Your task to perform on an android device: turn off notifications in google photos Image 0: 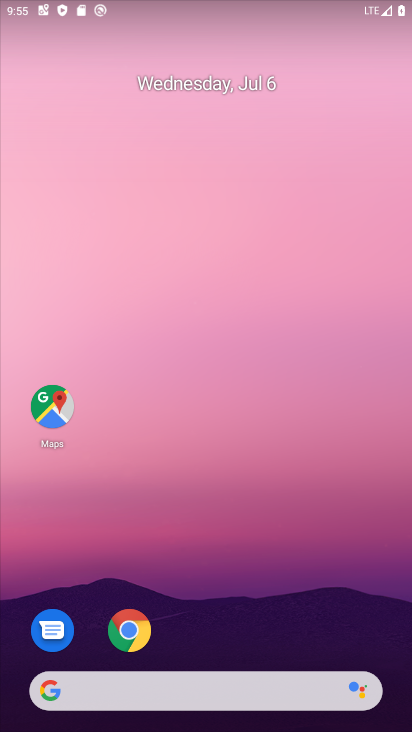
Step 0: drag from (398, 657) to (341, 130)
Your task to perform on an android device: turn off notifications in google photos Image 1: 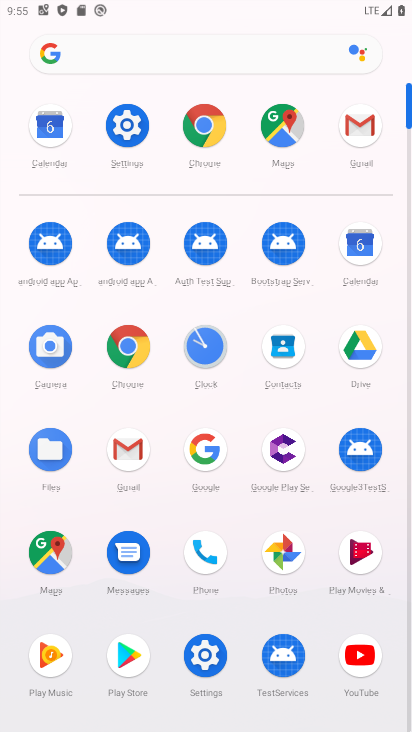
Step 1: click (282, 556)
Your task to perform on an android device: turn off notifications in google photos Image 2: 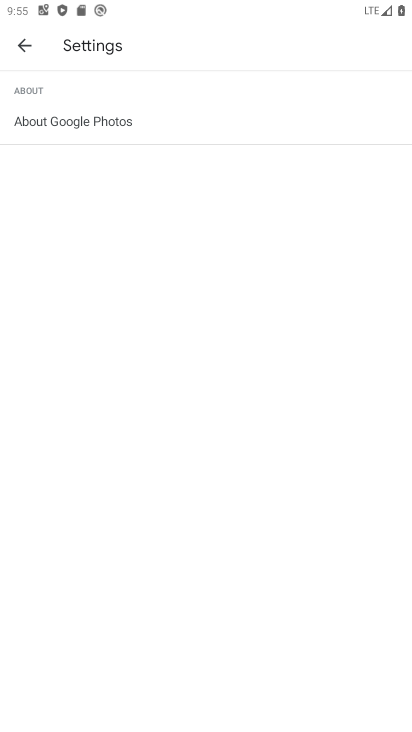
Step 2: press back button
Your task to perform on an android device: turn off notifications in google photos Image 3: 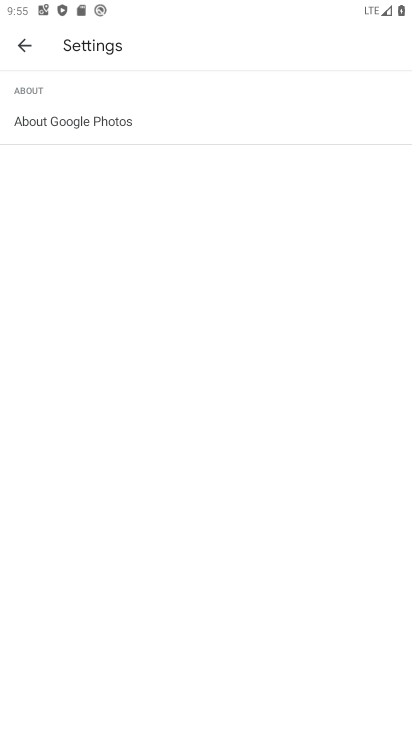
Step 3: press back button
Your task to perform on an android device: turn off notifications in google photos Image 4: 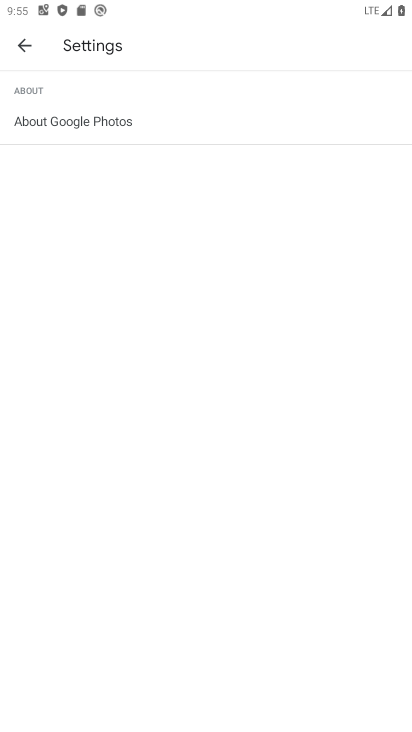
Step 4: press back button
Your task to perform on an android device: turn off notifications in google photos Image 5: 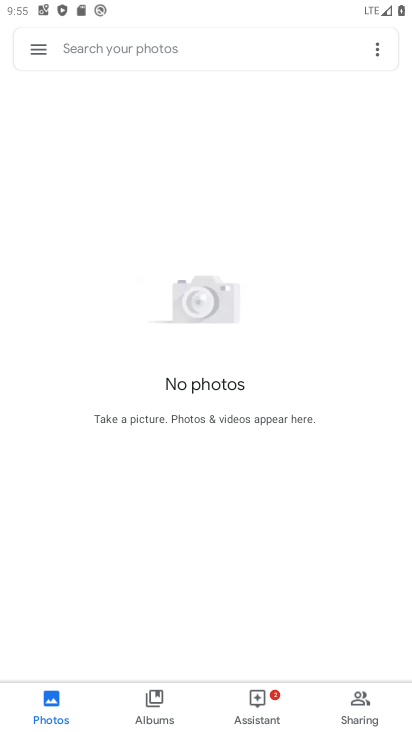
Step 5: click (33, 45)
Your task to perform on an android device: turn off notifications in google photos Image 6: 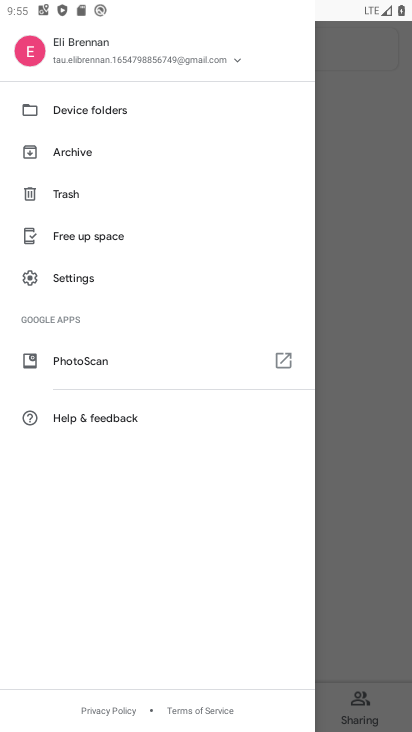
Step 6: click (80, 280)
Your task to perform on an android device: turn off notifications in google photos Image 7: 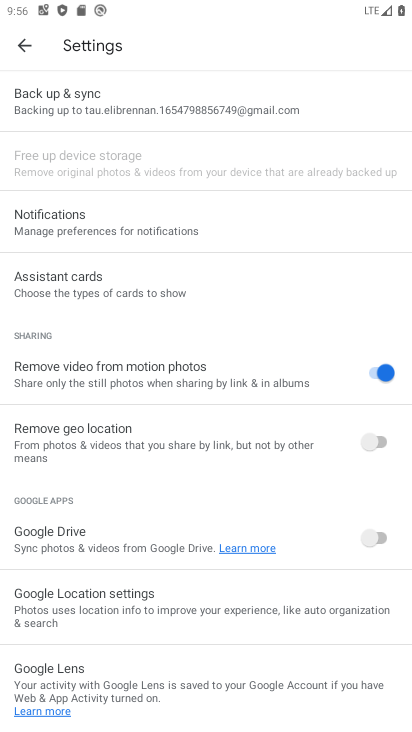
Step 7: click (74, 225)
Your task to perform on an android device: turn off notifications in google photos Image 8: 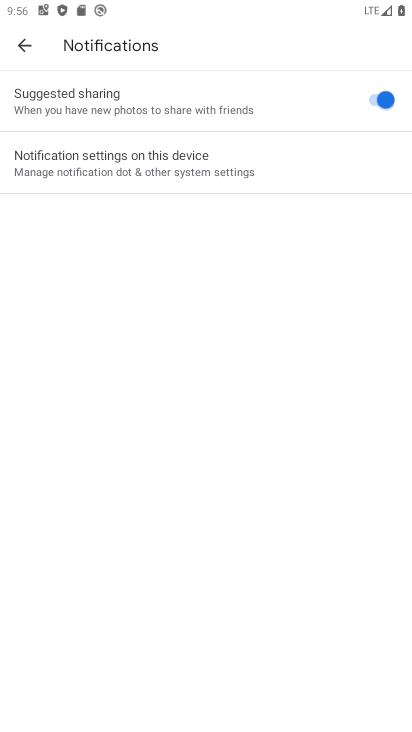
Step 8: click (88, 165)
Your task to perform on an android device: turn off notifications in google photos Image 9: 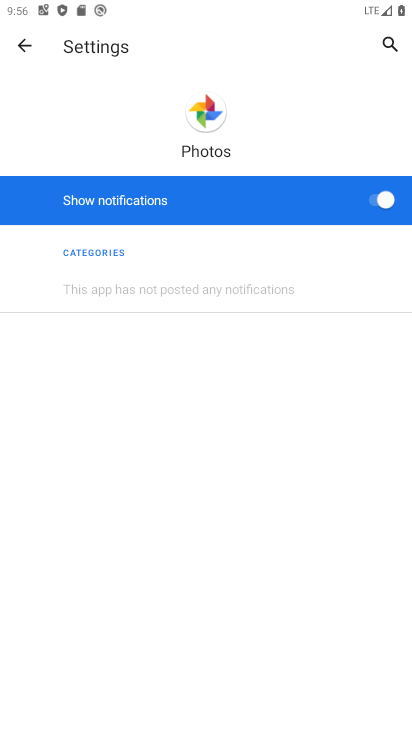
Step 9: click (367, 200)
Your task to perform on an android device: turn off notifications in google photos Image 10: 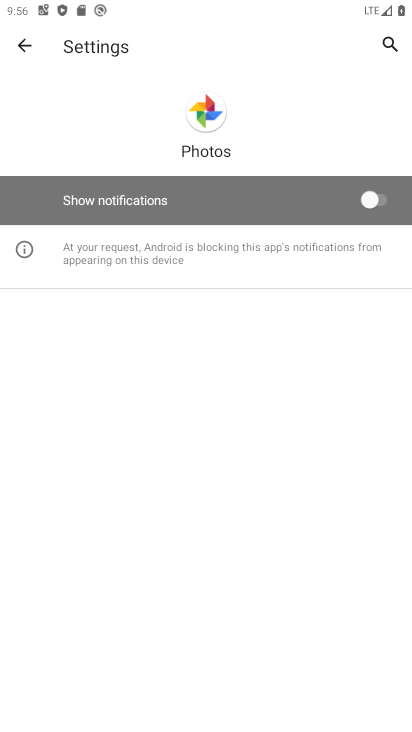
Step 10: task complete